Your task to perform on an android device: What's the weather? Image 0: 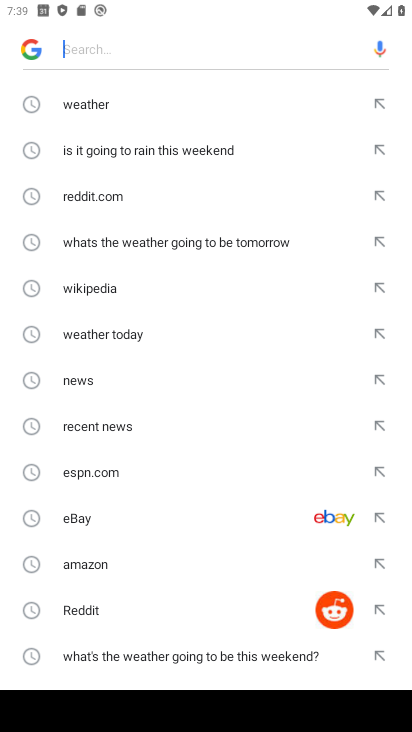
Step 0: press home button
Your task to perform on an android device: What's the weather? Image 1: 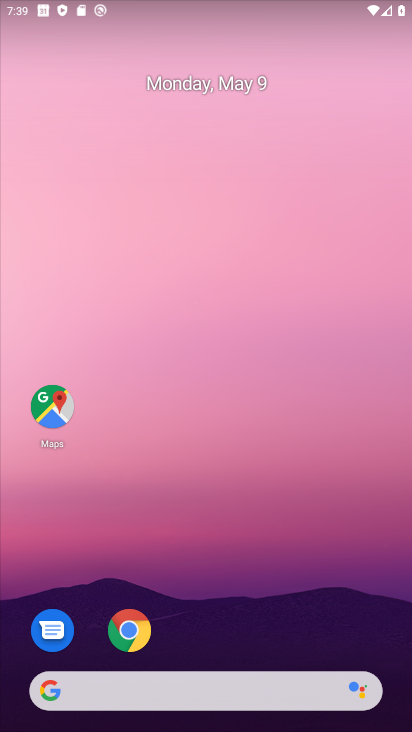
Step 1: drag from (370, 621) to (307, 137)
Your task to perform on an android device: What's the weather? Image 2: 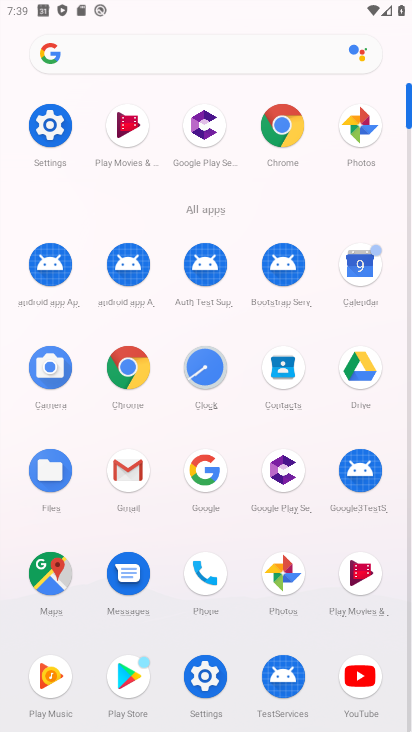
Step 2: click (277, 136)
Your task to perform on an android device: What's the weather? Image 3: 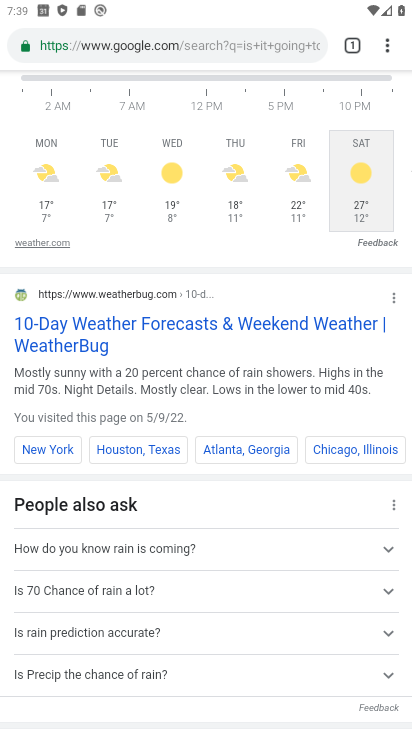
Step 3: click (280, 43)
Your task to perform on an android device: What's the weather? Image 4: 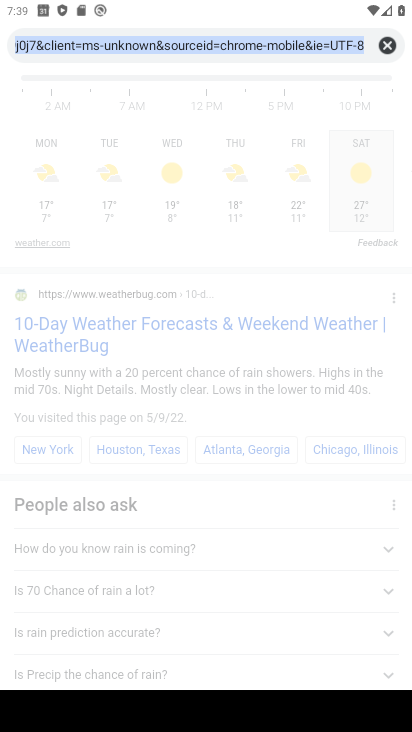
Step 4: click (384, 52)
Your task to perform on an android device: What's the weather? Image 5: 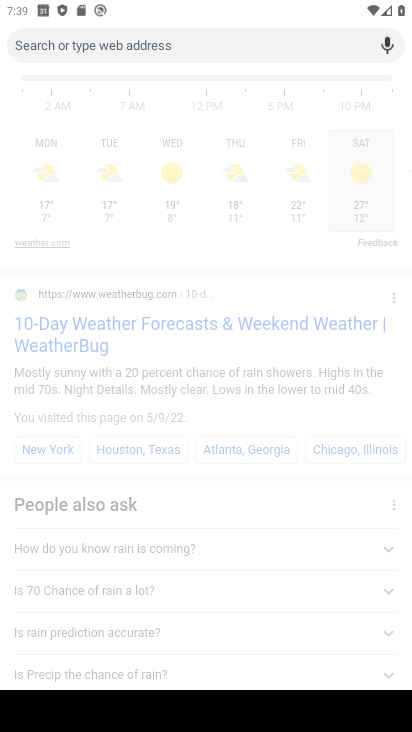
Step 5: type "what's the weather "
Your task to perform on an android device: What's the weather? Image 6: 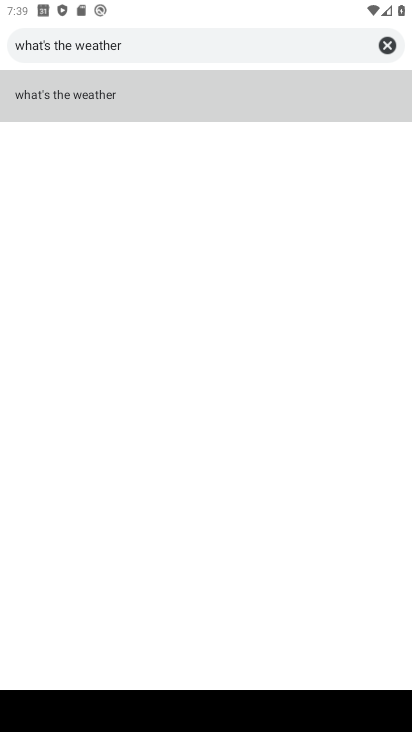
Step 6: click (58, 102)
Your task to perform on an android device: What's the weather? Image 7: 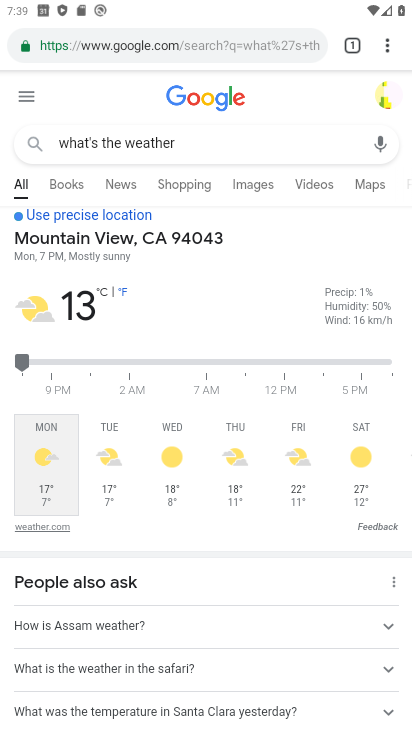
Step 7: task complete